Your task to perform on an android device: see tabs open on other devices in the chrome app Image 0: 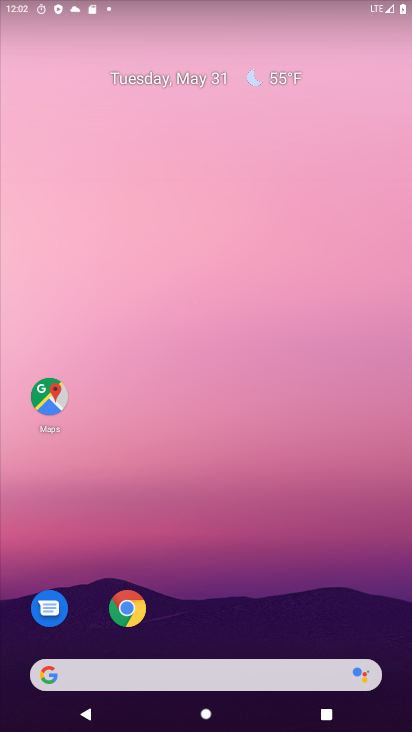
Step 0: click (125, 611)
Your task to perform on an android device: see tabs open on other devices in the chrome app Image 1: 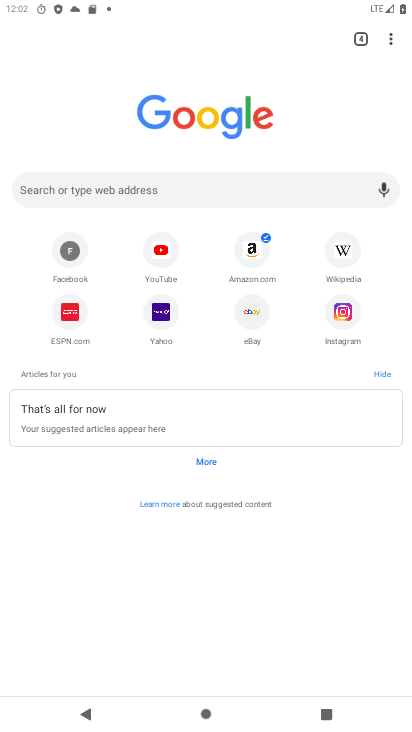
Step 1: click (390, 35)
Your task to perform on an android device: see tabs open on other devices in the chrome app Image 2: 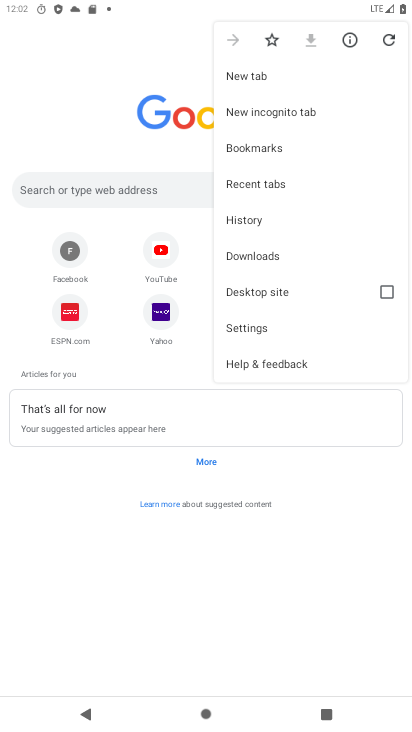
Step 2: click (245, 182)
Your task to perform on an android device: see tabs open on other devices in the chrome app Image 3: 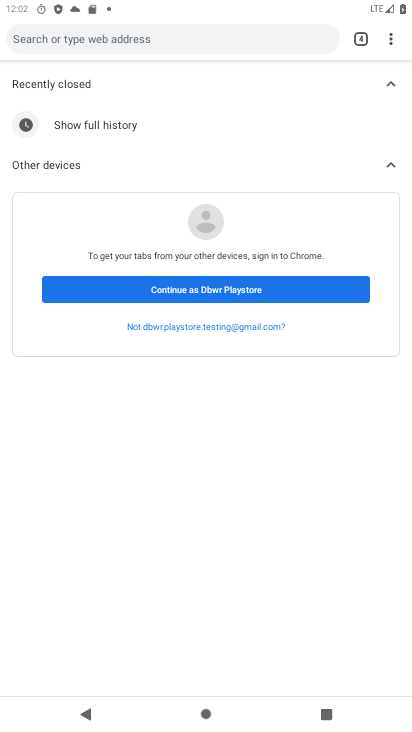
Step 3: click (232, 280)
Your task to perform on an android device: see tabs open on other devices in the chrome app Image 4: 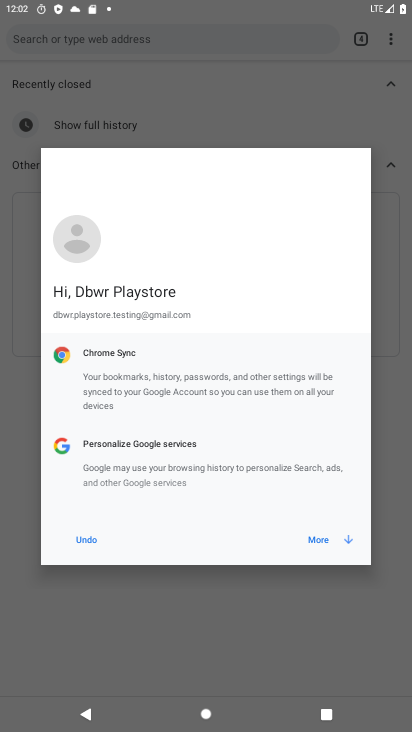
Step 4: click (311, 544)
Your task to perform on an android device: see tabs open on other devices in the chrome app Image 5: 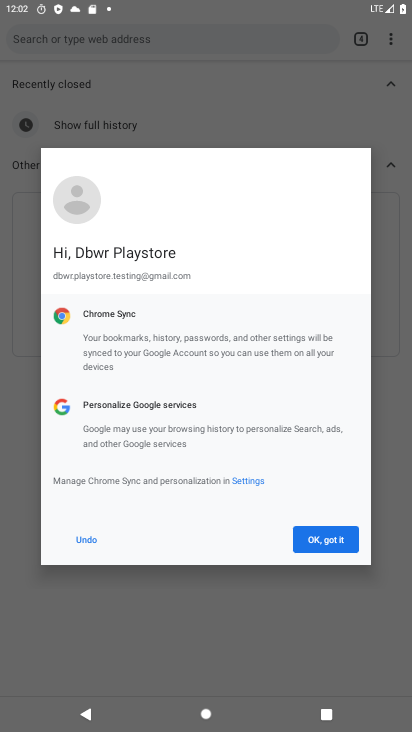
Step 5: click (311, 544)
Your task to perform on an android device: see tabs open on other devices in the chrome app Image 6: 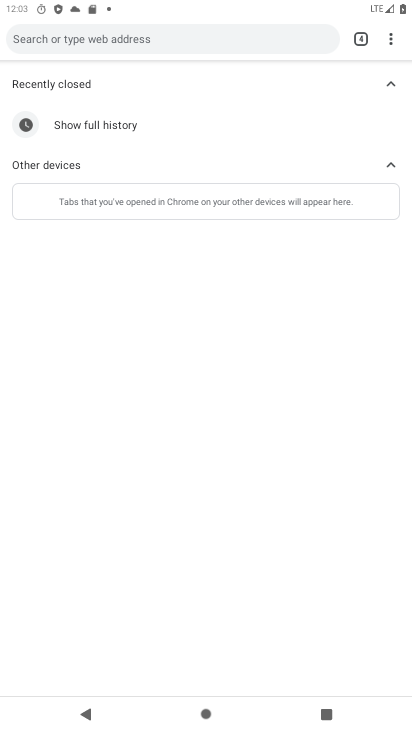
Step 6: task complete